Your task to perform on an android device: Do I have any events tomorrow? Image 0: 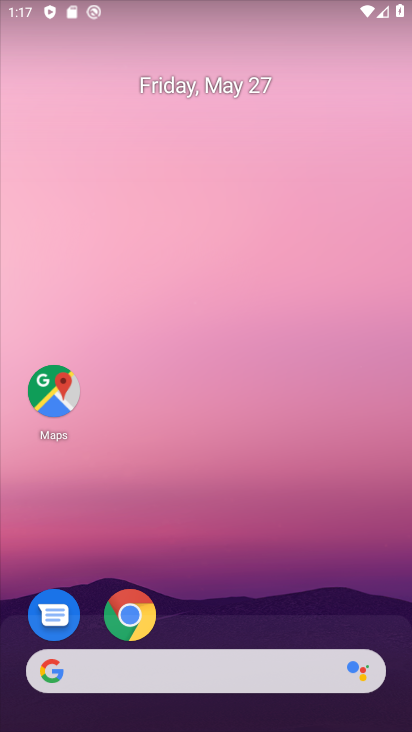
Step 0: press home button
Your task to perform on an android device: Do I have any events tomorrow? Image 1: 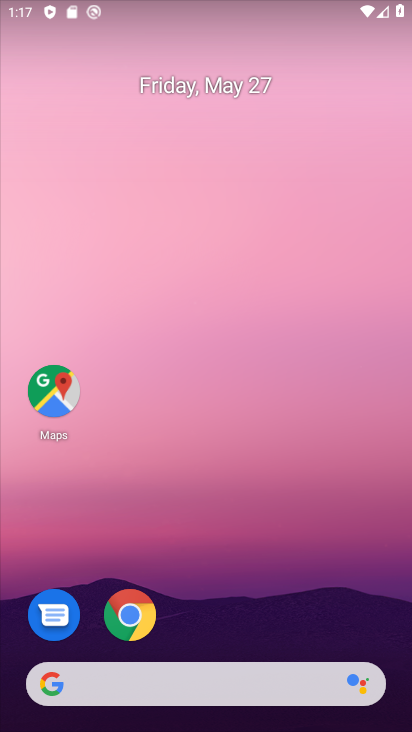
Step 1: drag from (363, 550) to (355, 69)
Your task to perform on an android device: Do I have any events tomorrow? Image 2: 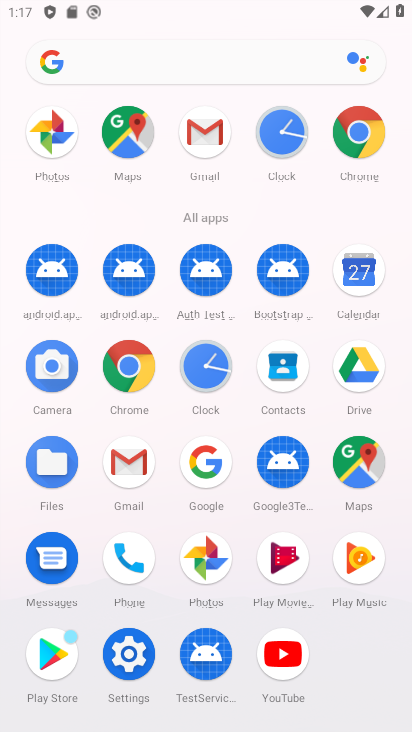
Step 2: click (361, 279)
Your task to perform on an android device: Do I have any events tomorrow? Image 3: 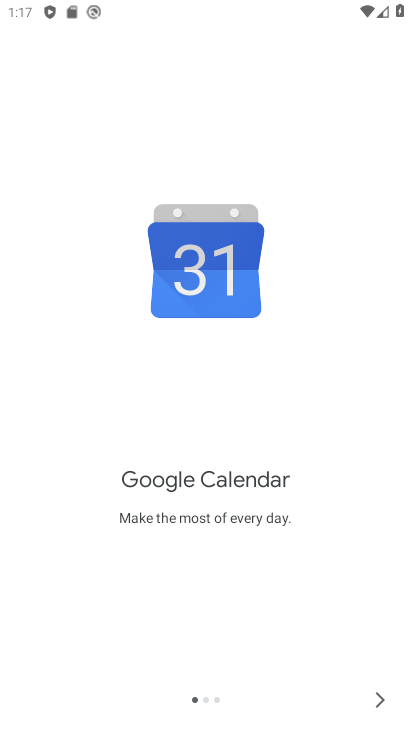
Step 3: click (380, 698)
Your task to perform on an android device: Do I have any events tomorrow? Image 4: 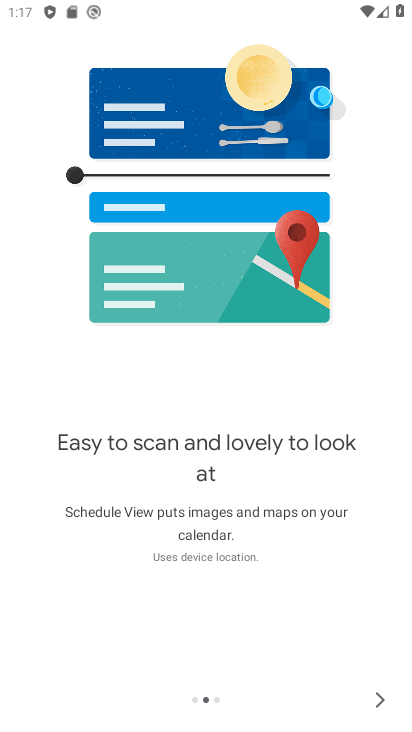
Step 4: click (381, 695)
Your task to perform on an android device: Do I have any events tomorrow? Image 5: 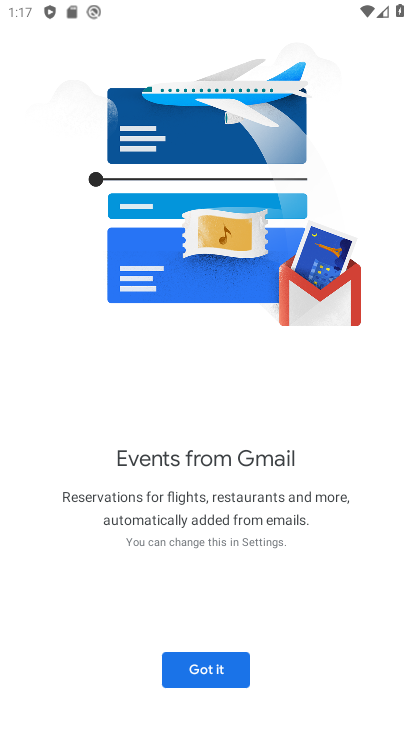
Step 5: click (182, 664)
Your task to perform on an android device: Do I have any events tomorrow? Image 6: 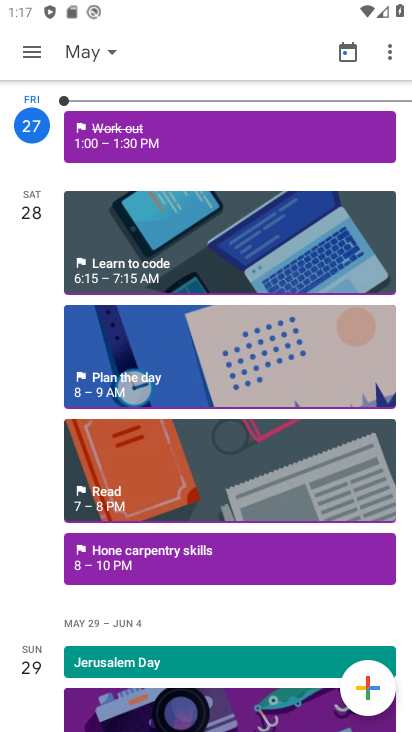
Step 6: click (39, 50)
Your task to perform on an android device: Do I have any events tomorrow? Image 7: 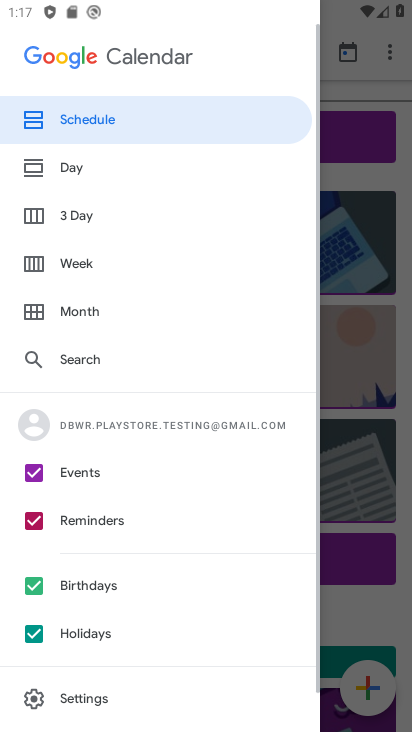
Step 7: click (355, 90)
Your task to perform on an android device: Do I have any events tomorrow? Image 8: 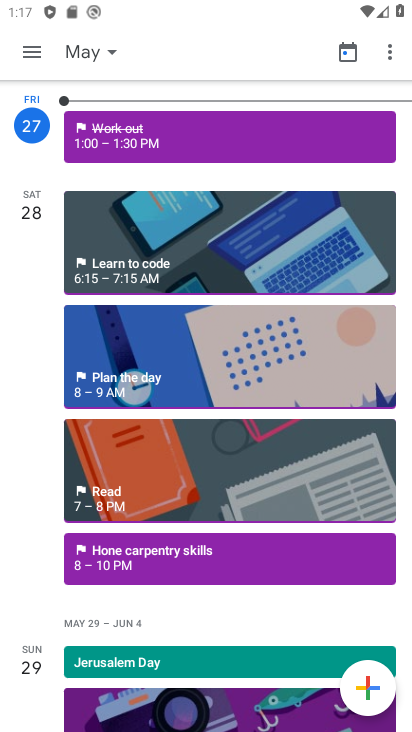
Step 8: task complete